Your task to perform on an android device: Go to Google Image 0: 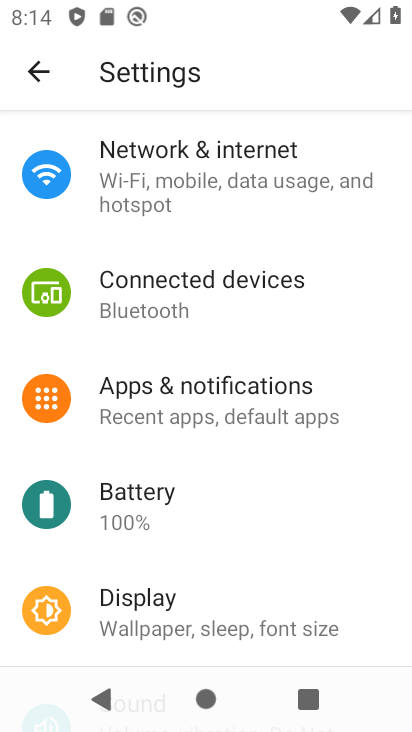
Step 0: press home button
Your task to perform on an android device: Go to Google Image 1: 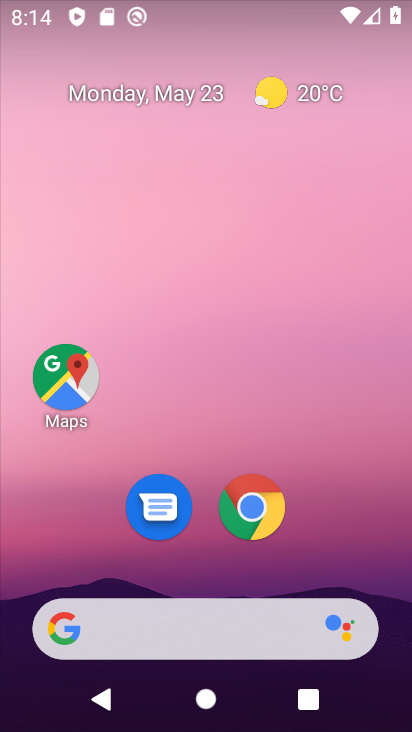
Step 1: drag from (331, 565) to (326, 0)
Your task to perform on an android device: Go to Google Image 2: 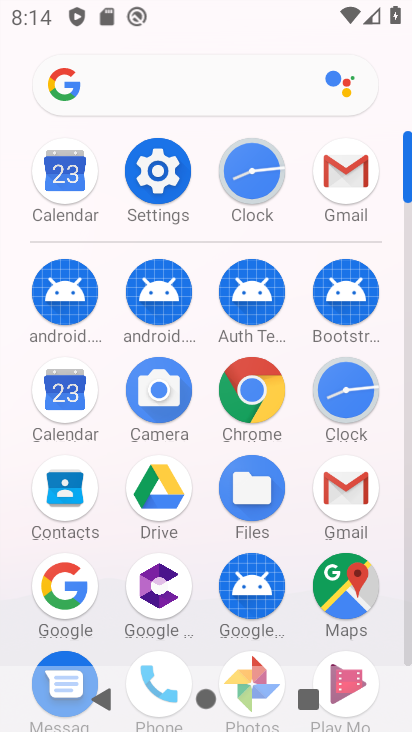
Step 2: click (71, 586)
Your task to perform on an android device: Go to Google Image 3: 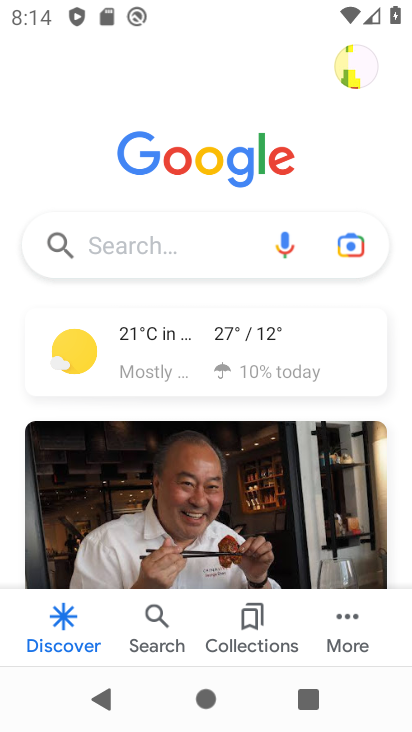
Step 3: task complete